Your task to perform on an android device: open app "DuckDuckGo Privacy Browser" (install if not already installed), go to login, and select forgot password Image 0: 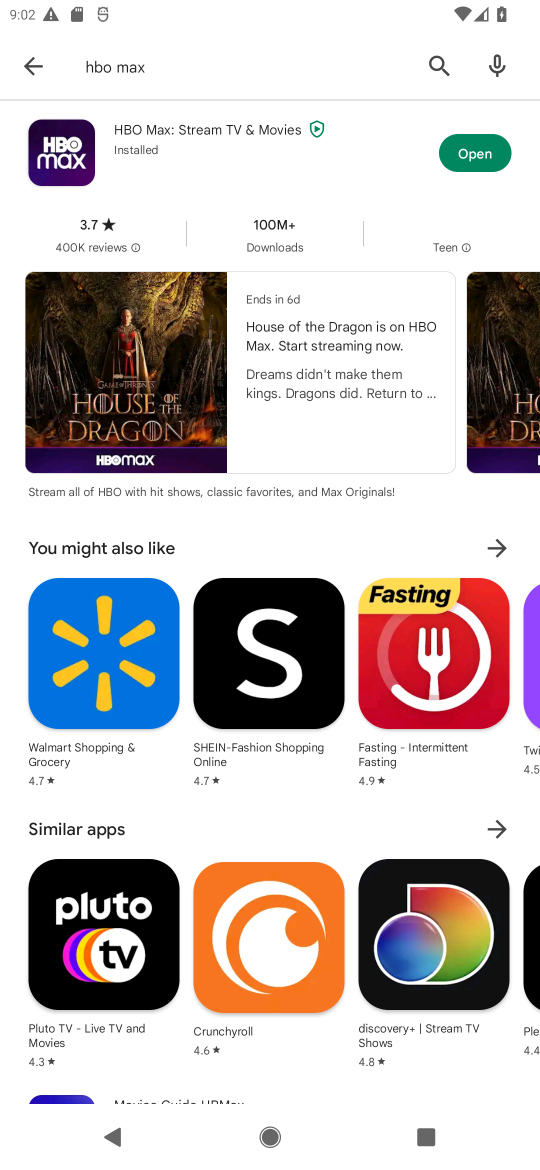
Step 0: press home button
Your task to perform on an android device: open app "DuckDuckGo Privacy Browser" (install if not already installed), go to login, and select forgot password Image 1: 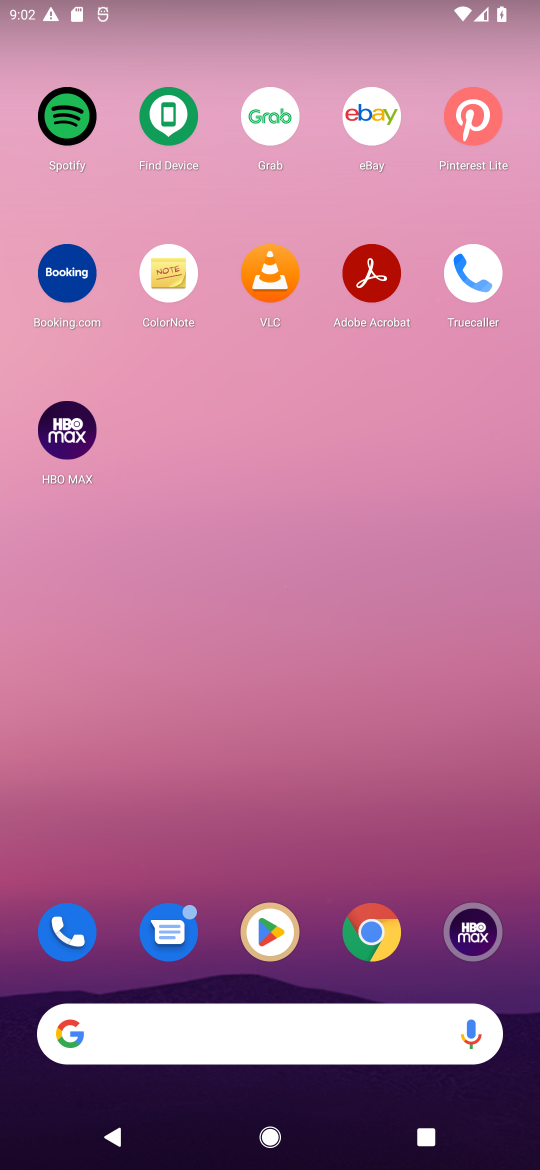
Step 1: click (286, 933)
Your task to perform on an android device: open app "DuckDuckGo Privacy Browser" (install if not already installed), go to login, and select forgot password Image 2: 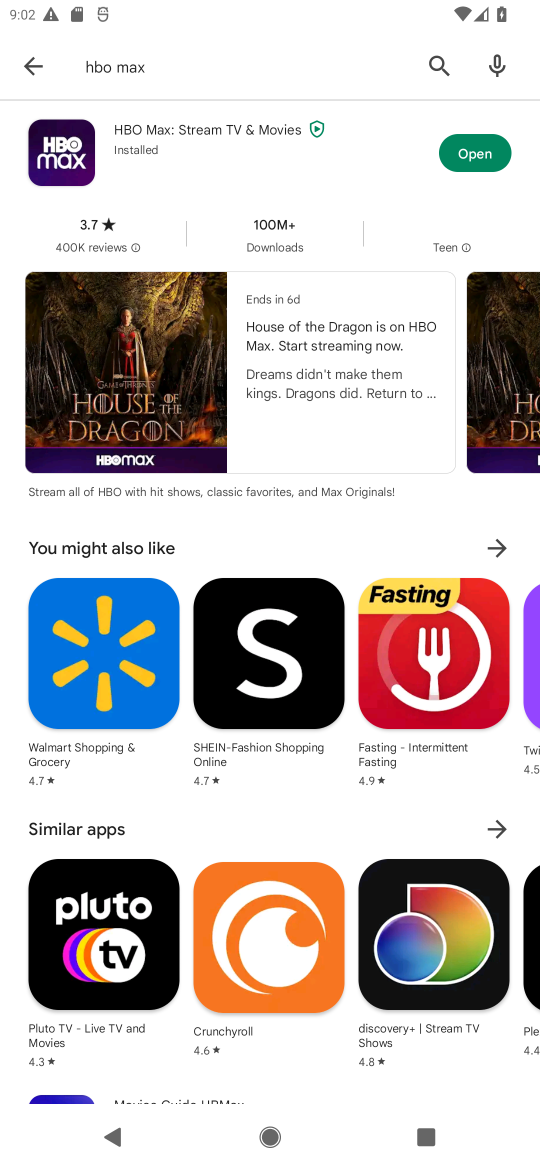
Step 2: click (438, 83)
Your task to perform on an android device: open app "DuckDuckGo Privacy Browser" (install if not already installed), go to login, and select forgot password Image 3: 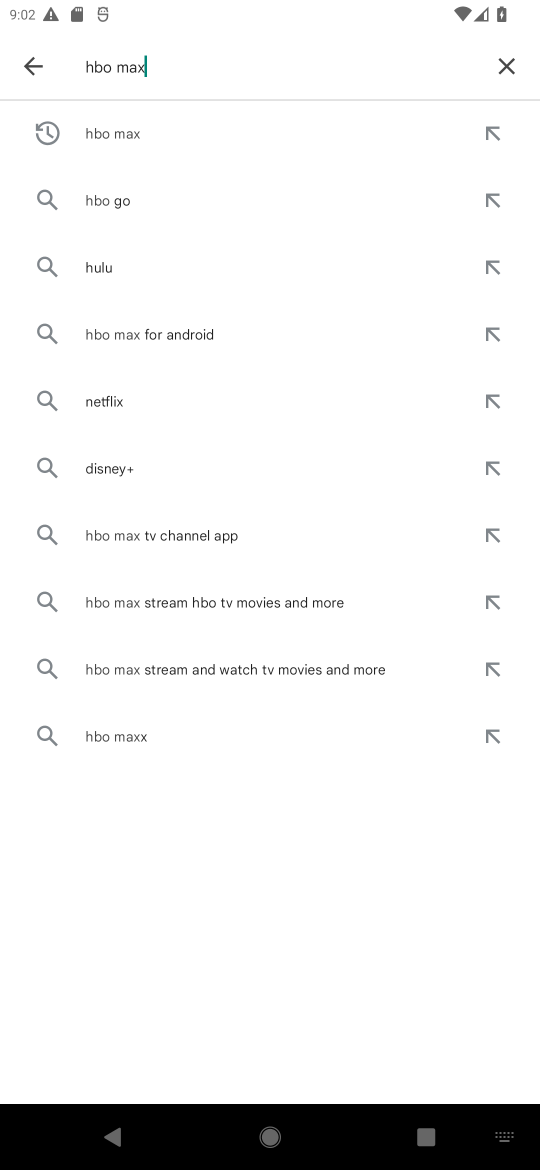
Step 3: click (521, 69)
Your task to perform on an android device: open app "DuckDuckGo Privacy Browser" (install if not already installed), go to login, and select forgot password Image 4: 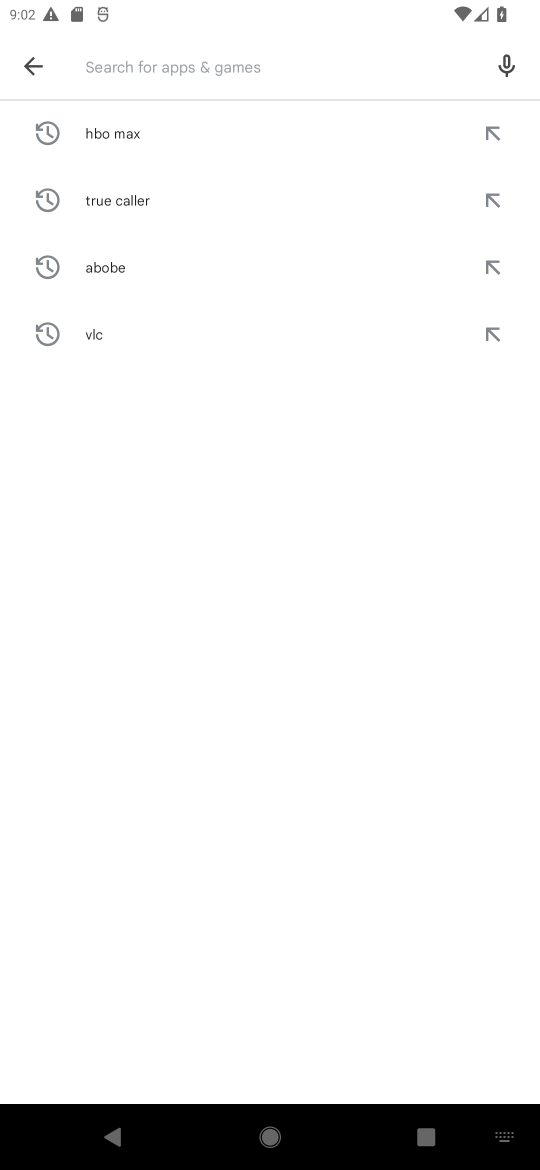
Step 4: type "duck duck go"
Your task to perform on an android device: open app "DuckDuckGo Privacy Browser" (install if not already installed), go to login, and select forgot password Image 5: 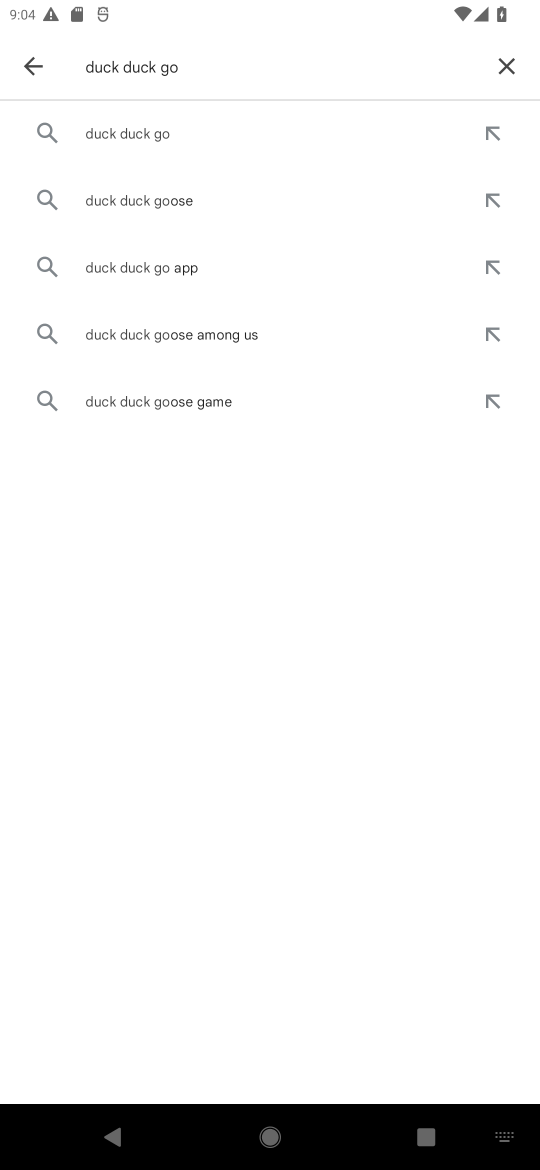
Step 5: click (194, 133)
Your task to perform on an android device: open app "DuckDuckGo Privacy Browser" (install if not already installed), go to login, and select forgot password Image 6: 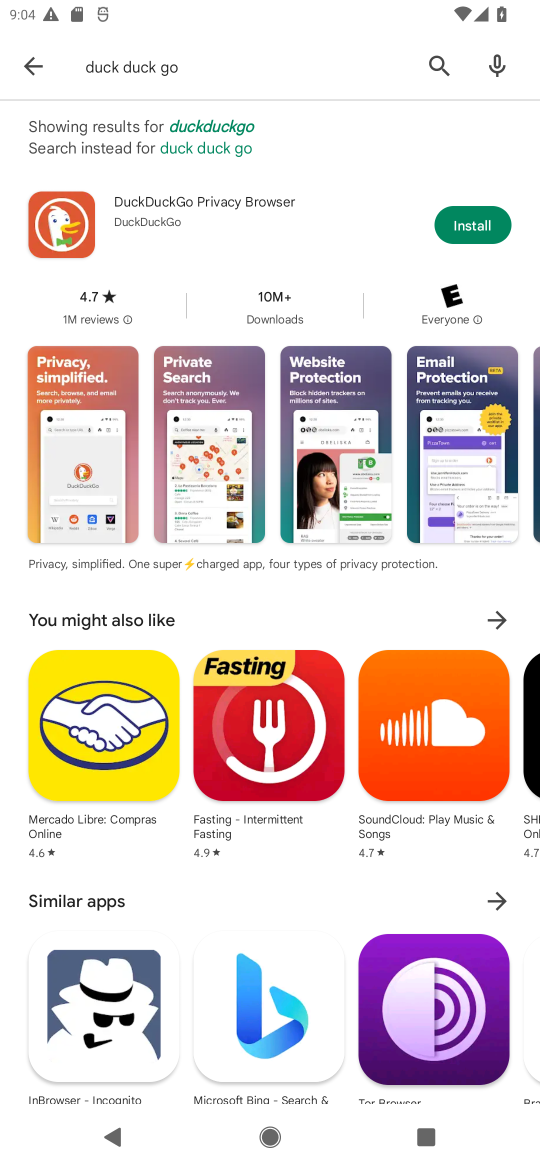
Step 6: click (438, 214)
Your task to perform on an android device: open app "DuckDuckGo Privacy Browser" (install if not already installed), go to login, and select forgot password Image 7: 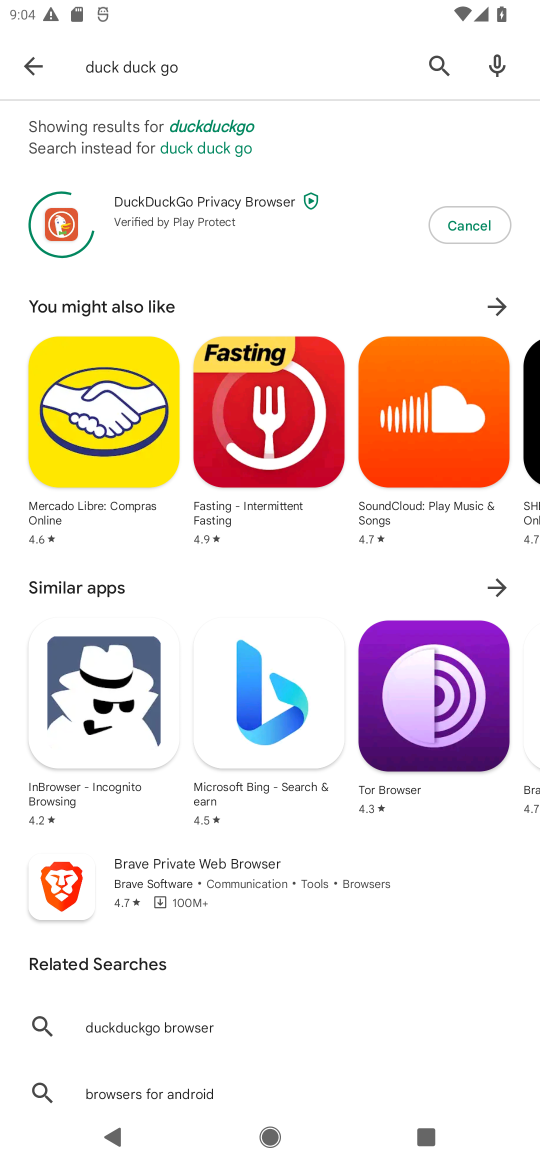
Step 7: task complete